Your task to perform on an android device: Open Chrome and go to settings Image 0: 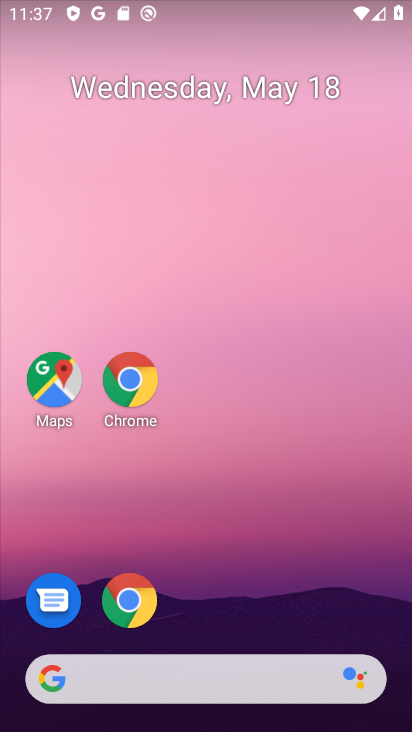
Step 0: drag from (374, 679) to (229, 300)
Your task to perform on an android device: Open Chrome and go to settings Image 1: 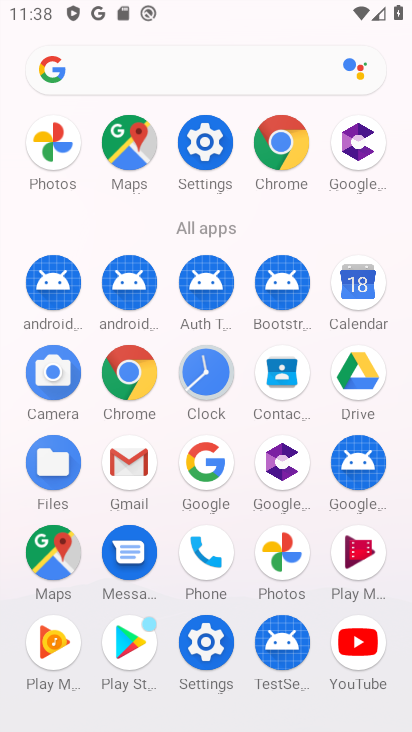
Step 1: click (203, 141)
Your task to perform on an android device: Open Chrome and go to settings Image 2: 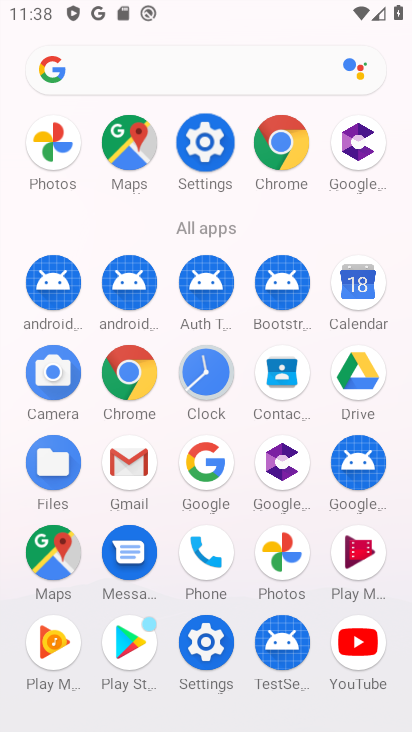
Step 2: click (203, 141)
Your task to perform on an android device: Open Chrome and go to settings Image 3: 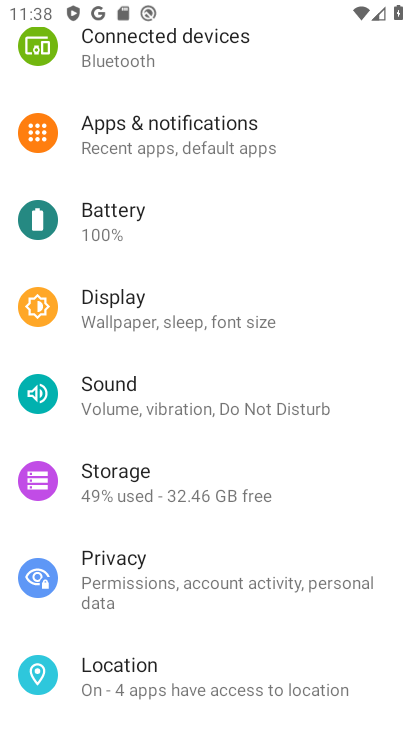
Step 3: press home button
Your task to perform on an android device: Open Chrome and go to settings Image 4: 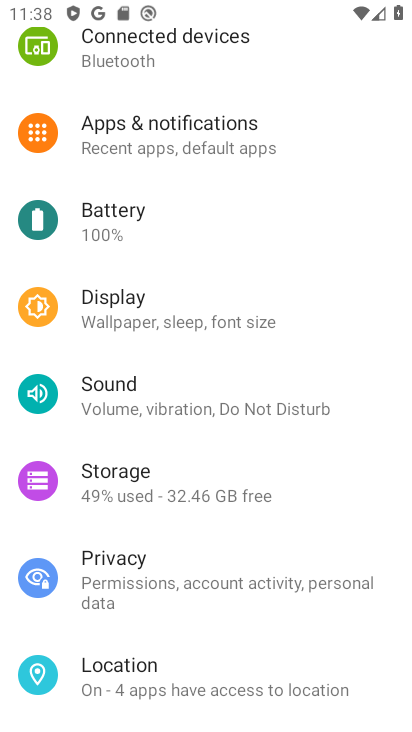
Step 4: press home button
Your task to perform on an android device: Open Chrome and go to settings Image 5: 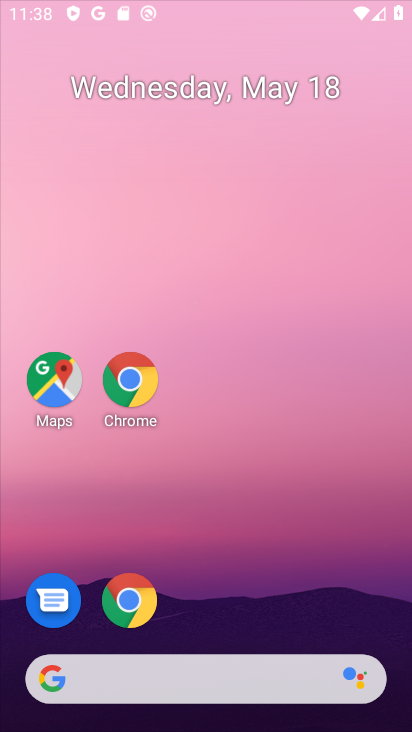
Step 5: press home button
Your task to perform on an android device: Open Chrome and go to settings Image 6: 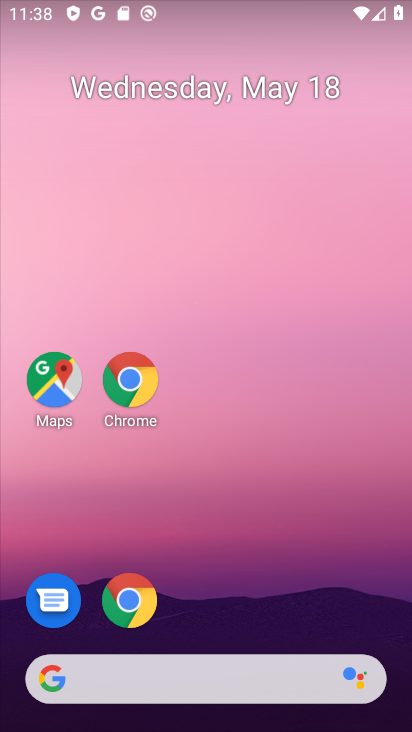
Step 6: drag from (275, 633) to (176, 142)
Your task to perform on an android device: Open Chrome and go to settings Image 7: 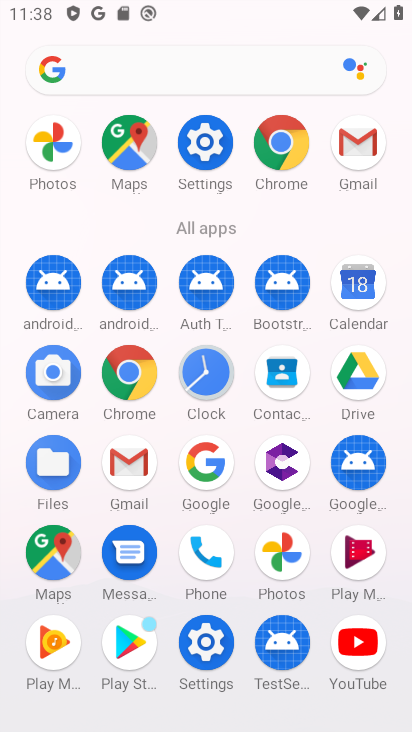
Step 7: click (206, 145)
Your task to perform on an android device: Open Chrome and go to settings Image 8: 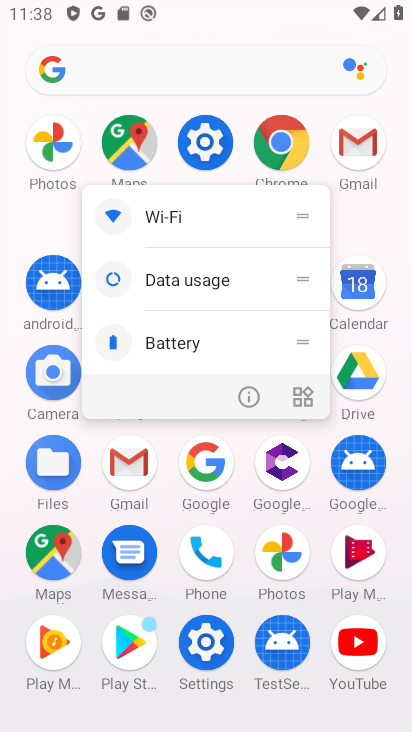
Step 8: click (211, 156)
Your task to perform on an android device: Open Chrome and go to settings Image 9: 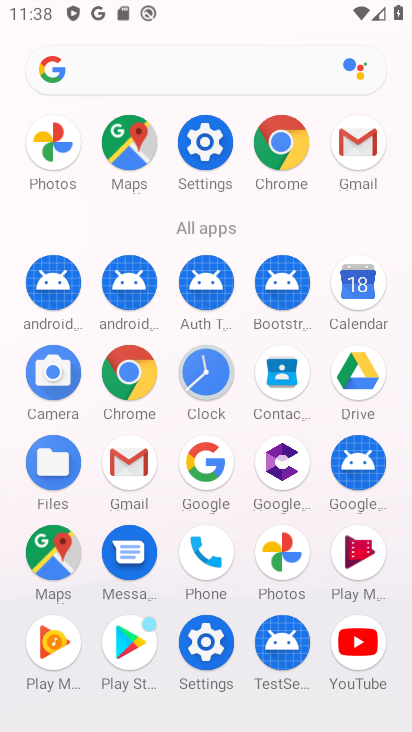
Step 9: click (203, 134)
Your task to perform on an android device: Open Chrome and go to settings Image 10: 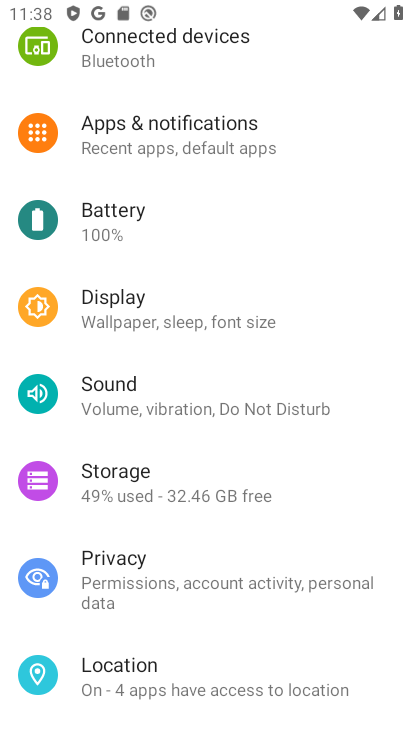
Step 10: drag from (129, 137) to (201, 450)
Your task to perform on an android device: Open Chrome and go to settings Image 11: 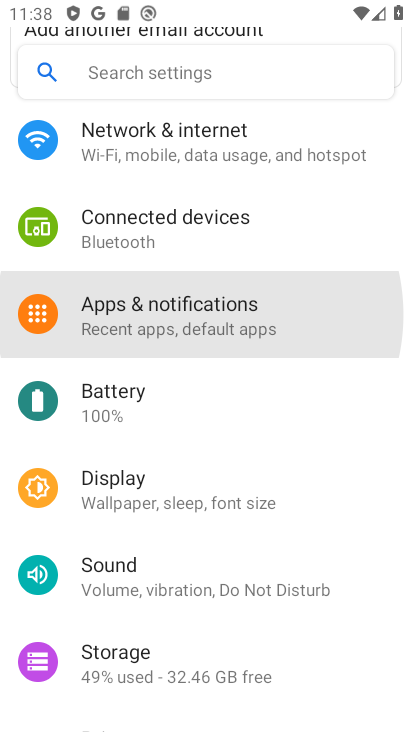
Step 11: drag from (155, 197) to (217, 585)
Your task to perform on an android device: Open Chrome and go to settings Image 12: 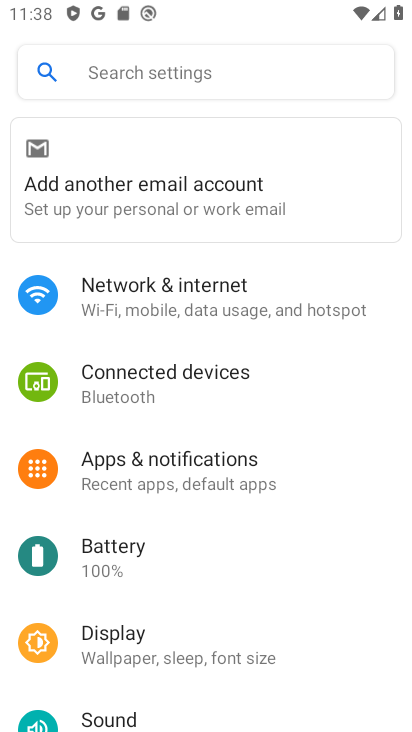
Step 12: press back button
Your task to perform on an android device: Open Chrome and go to settings Image 13: 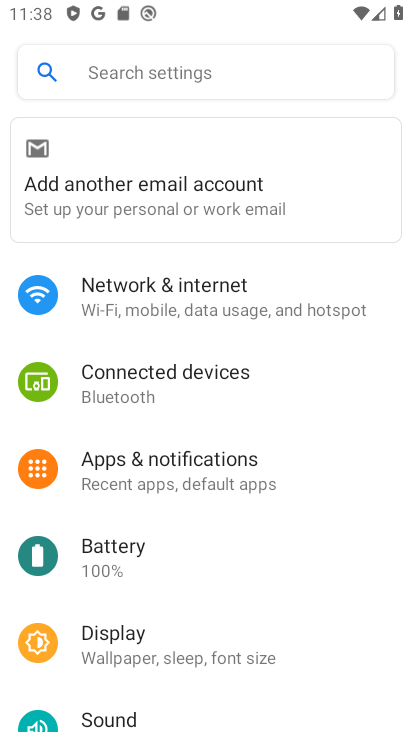
Step 13: press back button
Your task to perform on an android device: Open Chrome and go to settings Image 14: 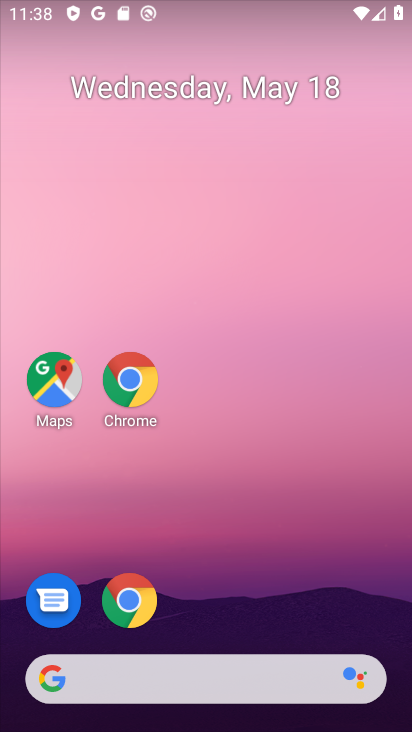
Step 14: drag from (233, 515) to (200, 178)
Your task to perform on an android device: Open Chrome and go to settings Image 15: 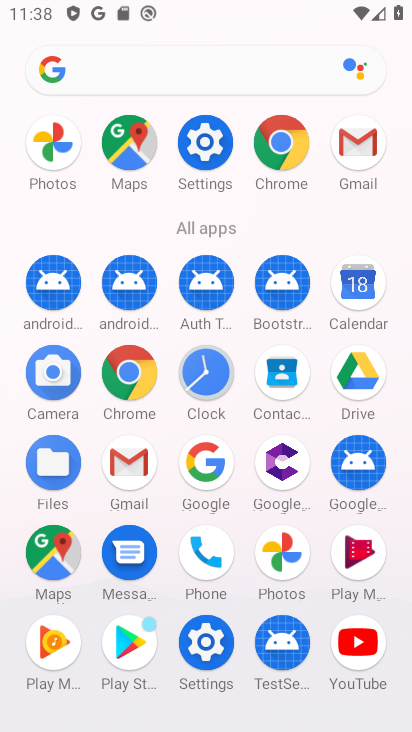
Step 15: click (282, 147)
Your task to perform on an android device: Open Chrome and go to settings Image 16: 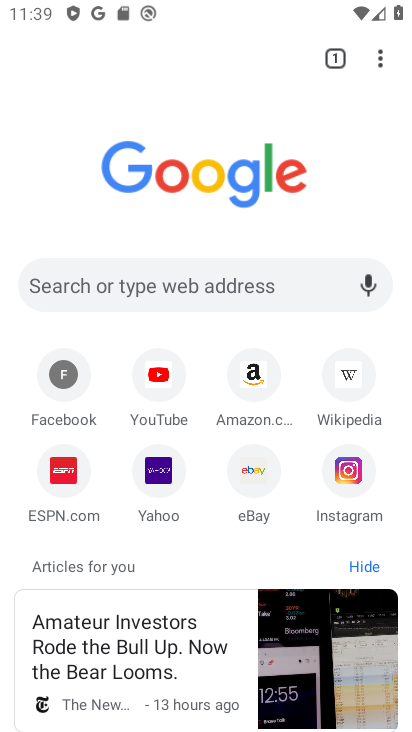
Step 16: click (388, 45)
Your task to perform on an android device: Open Chrome and go to settings Image 17: 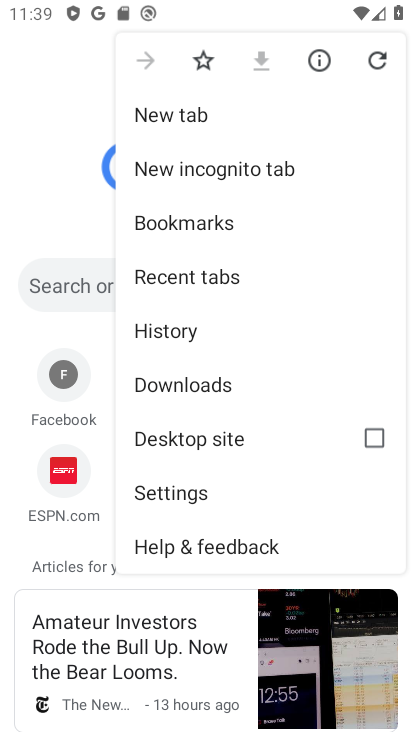
Step 17: click (165, 503)
Your task to perform on an android device: Open Chrome and go to settings Image 18: 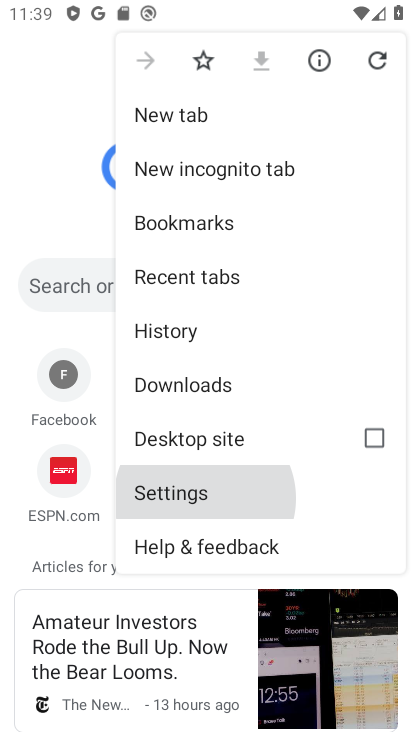
Step 18: click (174, 501)
Your task to perform on an android device: Open Chrome and go to settings Image 19: 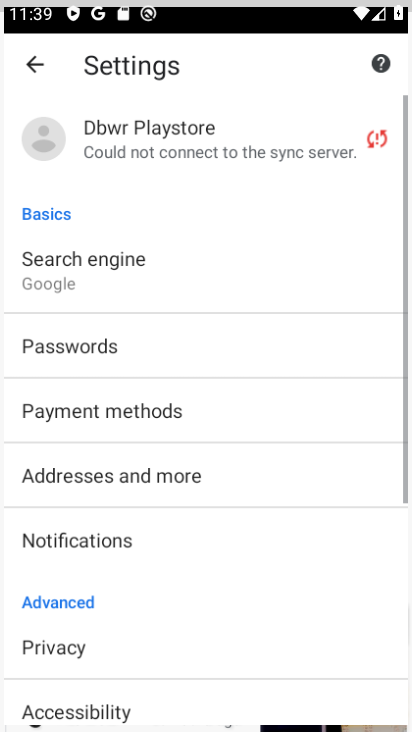
Step 19: click (174, 501)
Your task to perform on an android device: Open Chrome and go to settings Image 20: 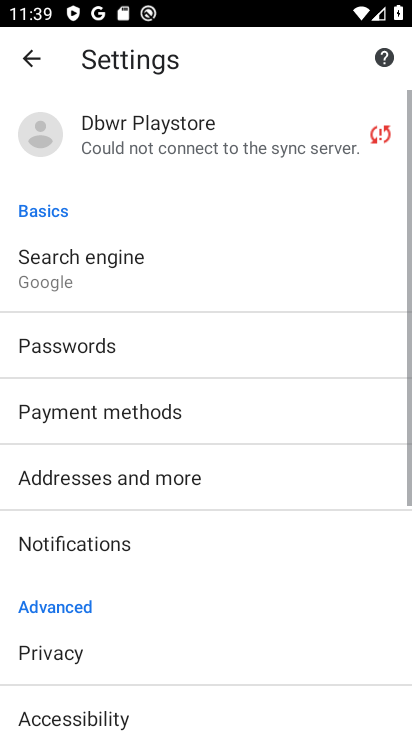
Step 20: click (171, 501)
Your task to perform on an android device: Open Chrome and go to settings Image 21: 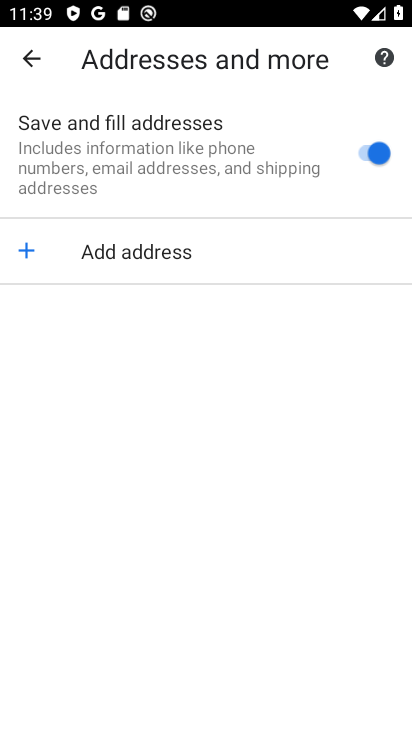
Step 21: click (31, 54)
Your task to perform on an android device: Open Chrome and go to settings Image 22: 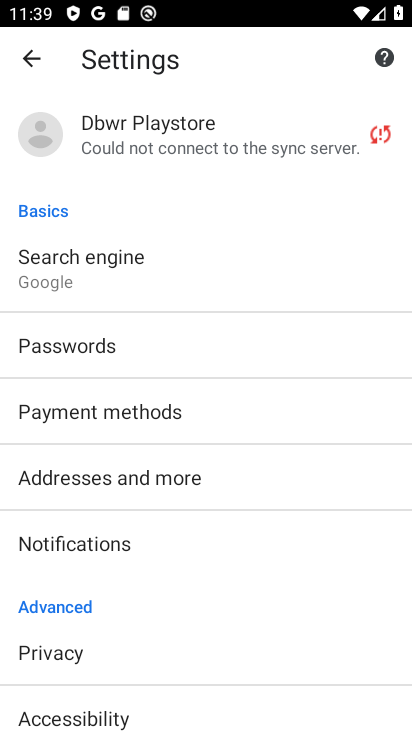
Step 22: task complete